Your task to perform on an android device: turn on translation in the chrome app Image 0: 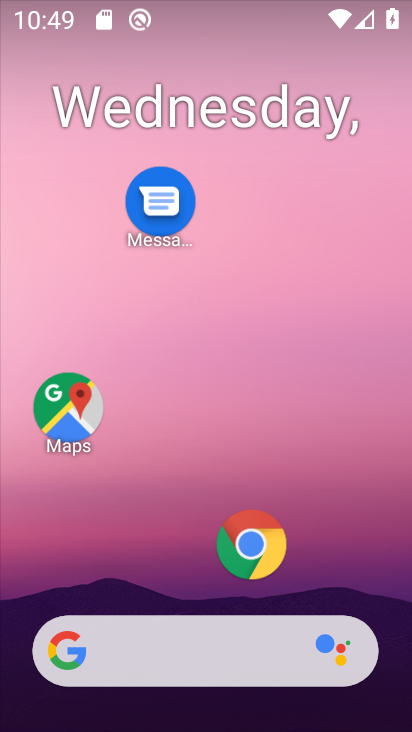
Step 0: click (264, 548)
Your task to perform on an android device: turn on translation in the chrome app Image 1: 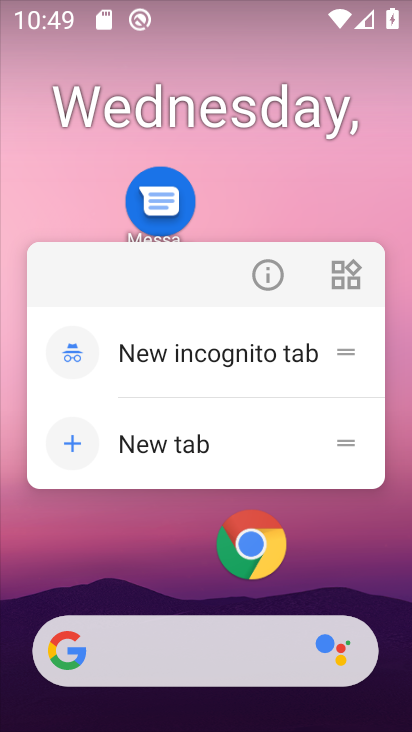
Step 1: click (262, 546)
Your task to perform on an android device: turn on translation in the chrome app Image 2: 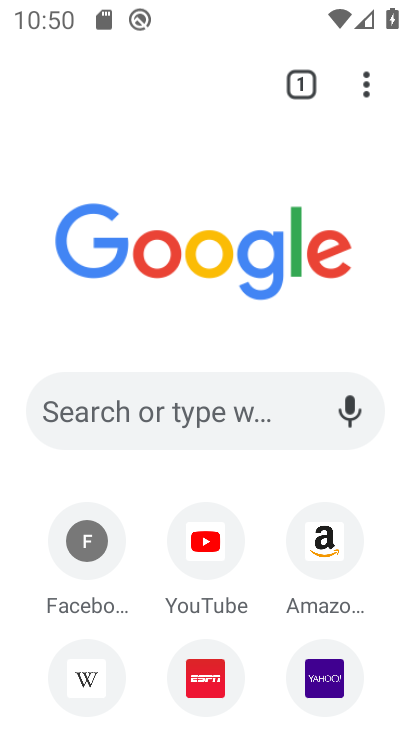
Step 2: drag from (365, 87) to (155, 598)
Your task to perform on an android device: turn on translation in the chrome app Image 3: 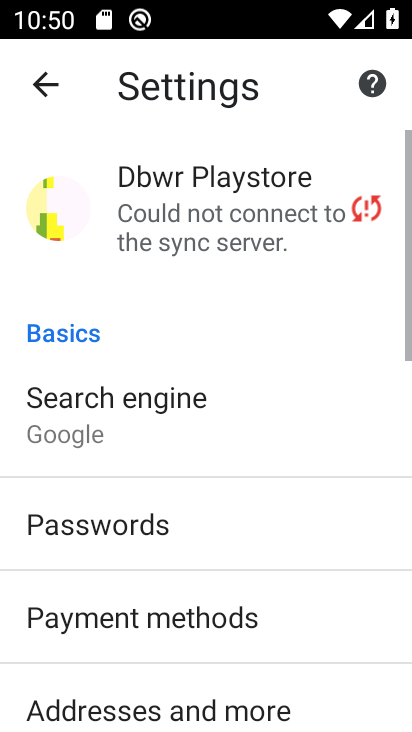
Step 3: drag from (202, 625) to (255, 281)
Your task to perform on an android device: turn on translation in the chrome app Image 4: 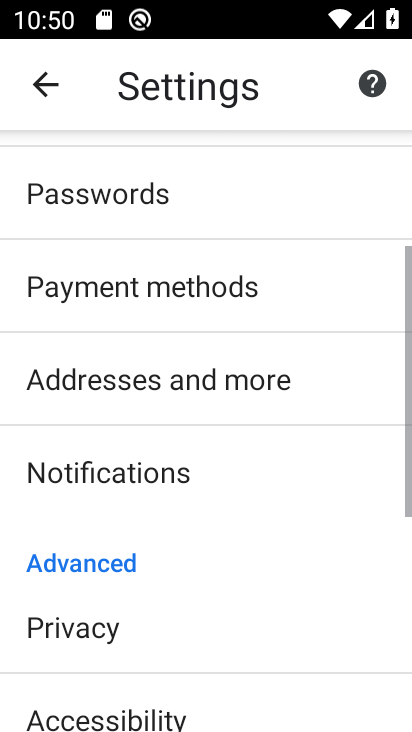
Step 4: drag from (219, 588) to (273, 250)
Your task to perform on an android device: turn on translation in the chrome app Image 5: 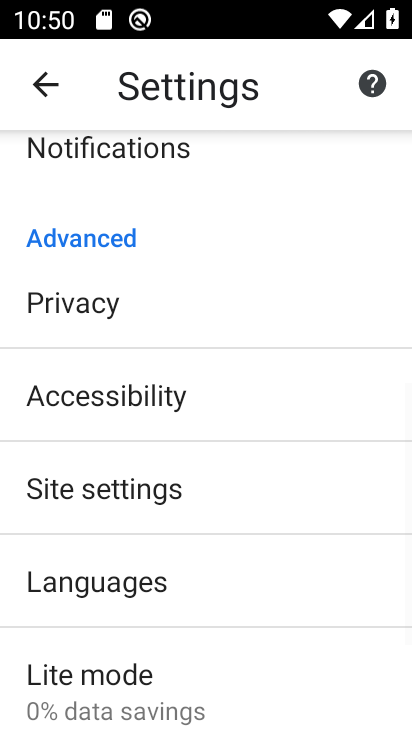
Step 5: drag from (215, 582) to (251, 402)
Your task to perform on an android device: turn on translation in the chrome app Image 6: 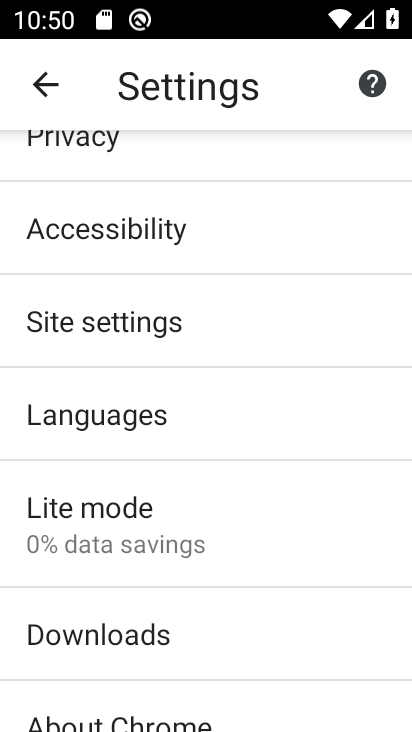
Step 6: click (203, 425)
Your task to perform on an android device: turn on translation in the chrome app Image 7: 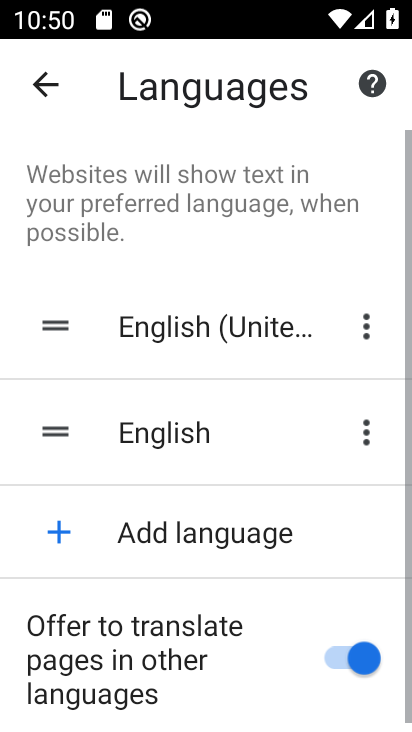
Step 7: task complete